Your task to perform on an android device: see sites visited before in the chrome app Image 0: 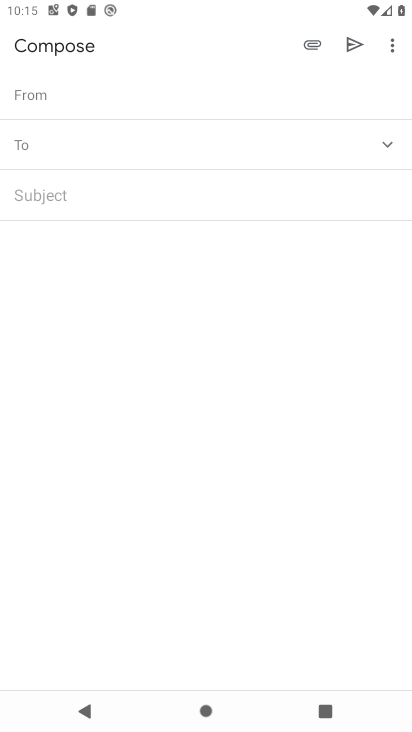
Step 0: click (120, 590)
Your task to perform on an android device: see sites visited before in the chrome app Image 1: 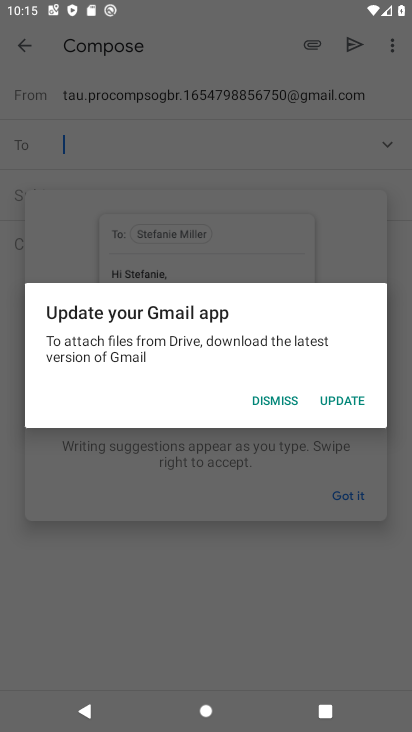
Step 1: press home button
Your task to perform on an android device: see sites visited before in the chrome app Image 2: 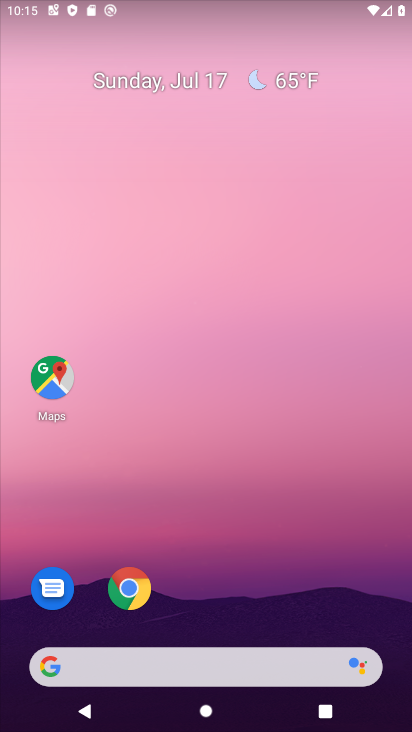
Step 2: click (129, 587)
Your task to perform on an android device: see sites visited before in the chrome app Image 3: 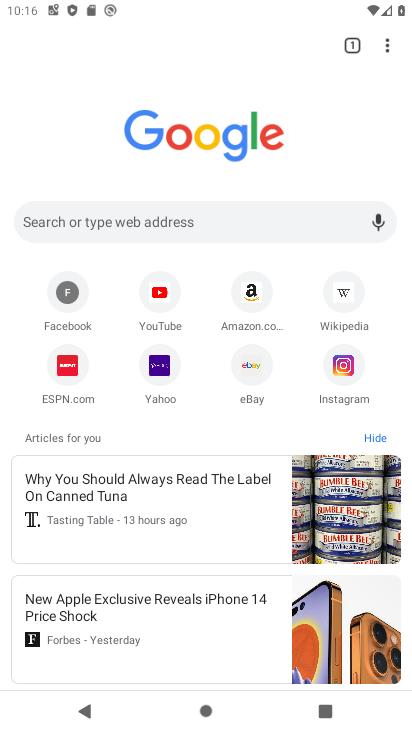
Step 3: click (388, 35)
Your task to perform on an android device: see sites visited before in the chrome app Image 4: 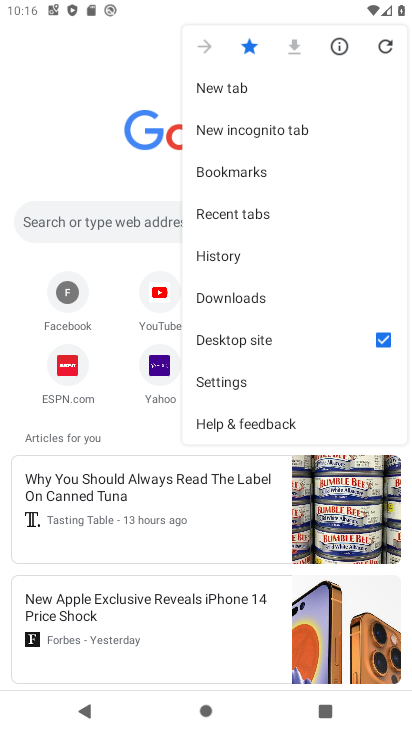
Step 4: click (221, 251)
Your task to perform on an android device: see sites visited before in the chrome app Image 5: 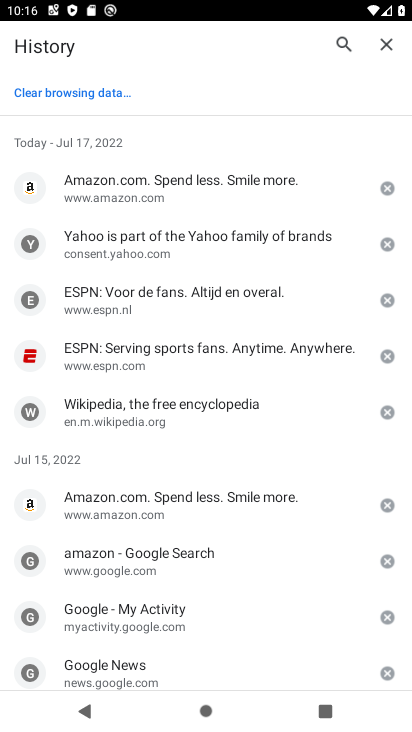
Step 5: task complete